Your task to perform on an android device: Turn off the flashlight Image 0: 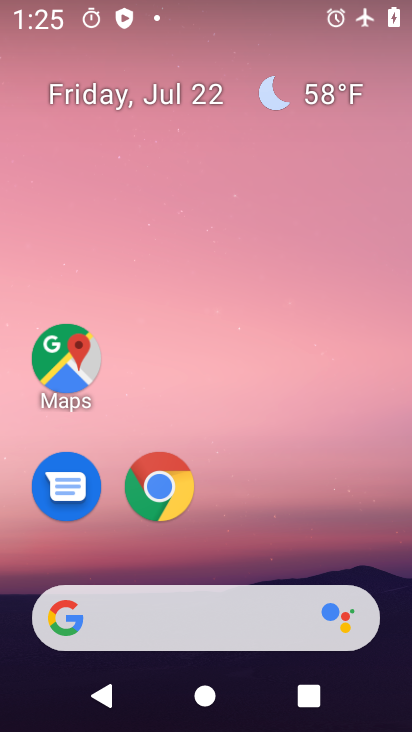
Step 0: drag from (245, 1) to (244, 332)
Your task to perform on an android device: Turn off the flashlight Image 1: 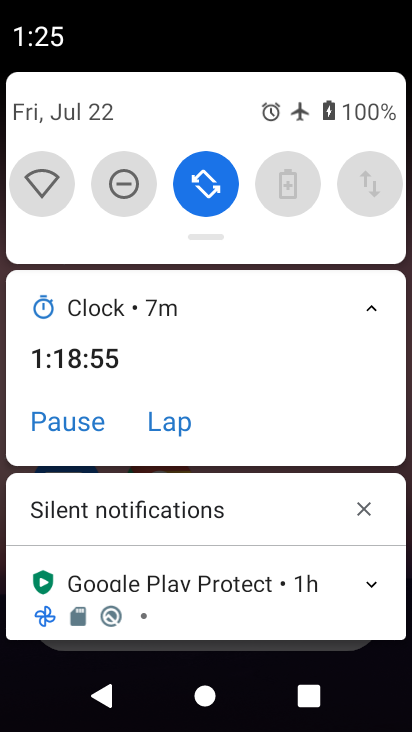
Step 1: drag from (163, 102) to (167, 344)
Your task to perform on an android device: Turn off the flashlight Image 2: 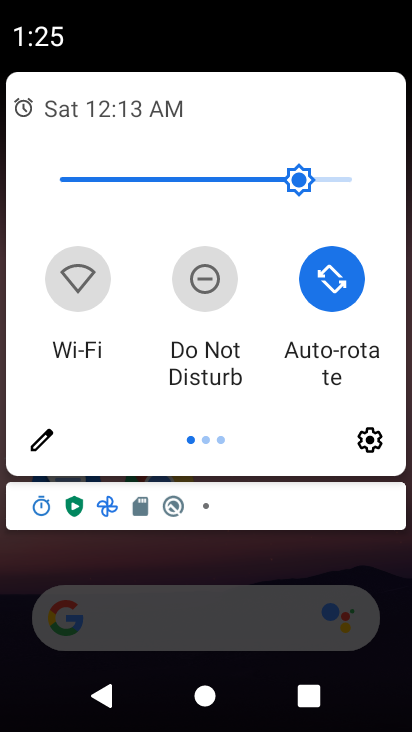
Step 2: click (60, 441)
Your task to perform on an android device: Turn off the flashlight Image 3: 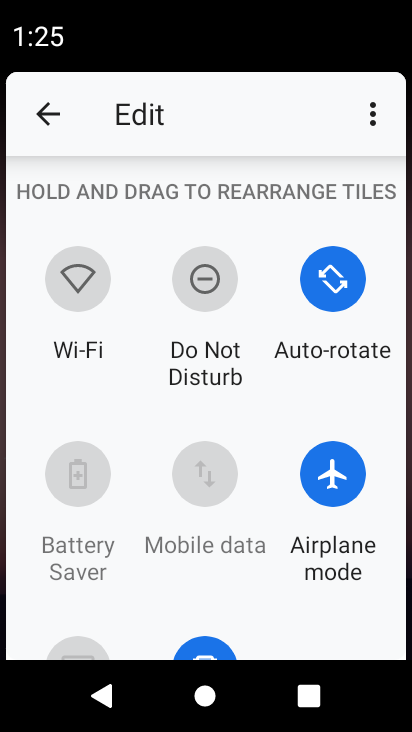
Step 3: task complete